Your task to perform on an android device: Open Yahoo.com Image 0: 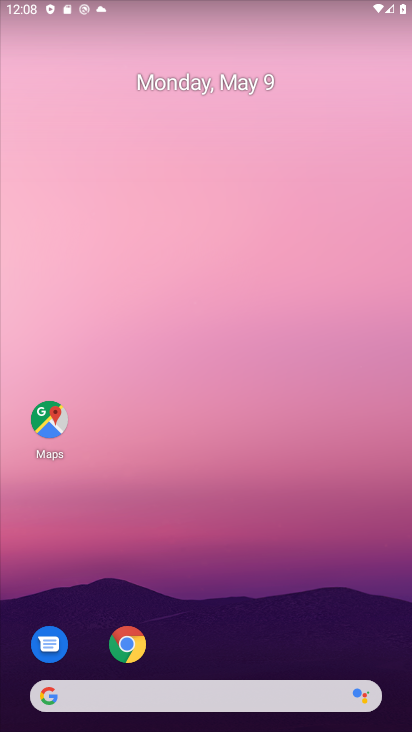
Step 0: click (119, 637)
Your task to perform on an android device: Open Yahoo.com Image 1: 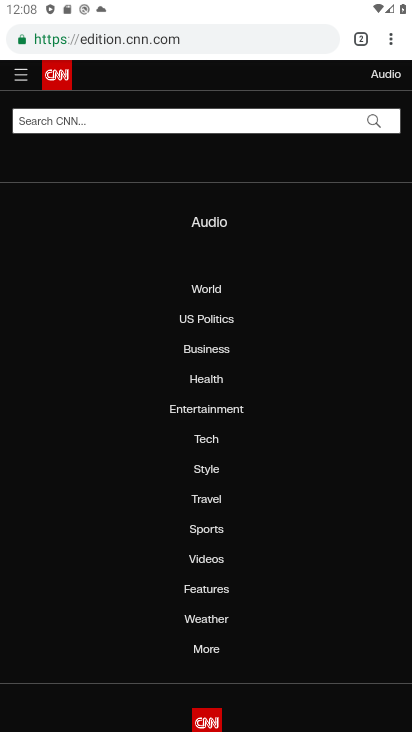
Step 1: click (358, 36)
Your task to perform on an android device: Open Yahoo.com Image 2: 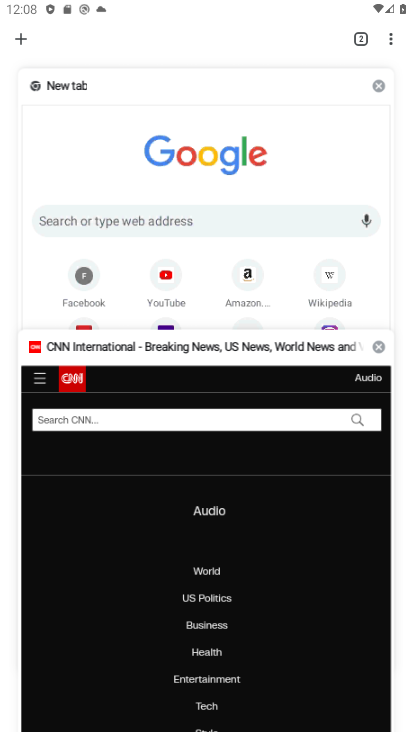
Step 2: click (380, 341)
Your task to perform on an android device: Open Yahoo.com Image 3: 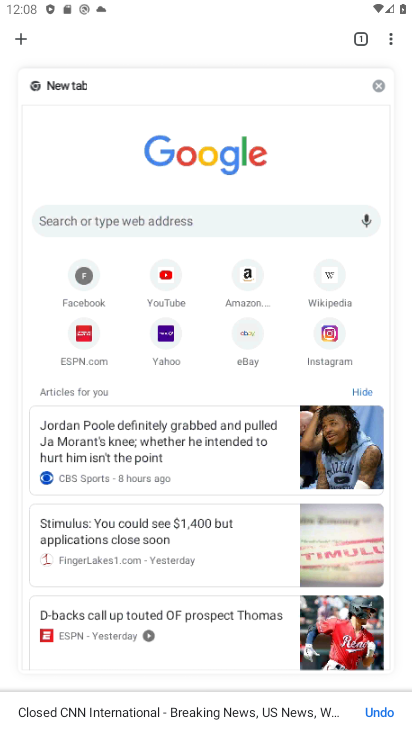
Step 3: click (377, 84)
Your task to perform on an android device: Open Yahoo.com Image 4: 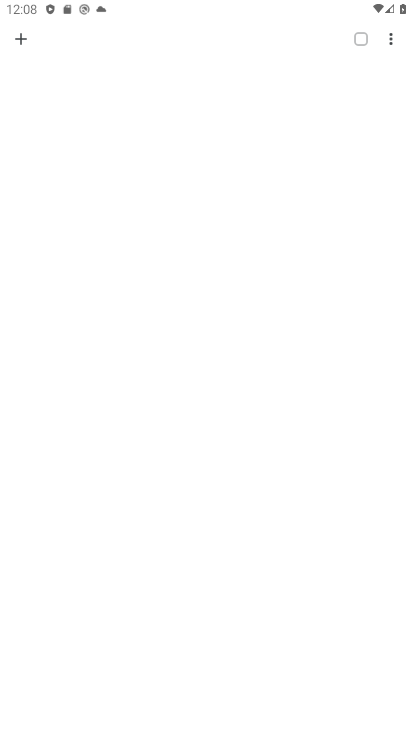
Step 4: click (18, 38)
Your task to perform on an android device: Open Yahoo.com Image 5: 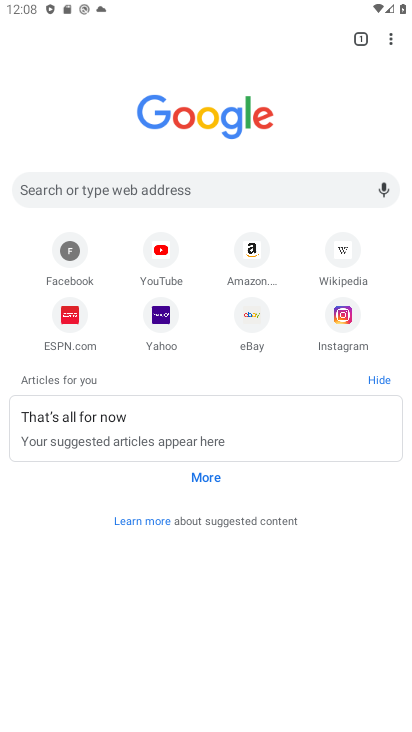
Step 5: click (163, 310)
Your task to perform on an android device: Open Yahoo.com Image 6: 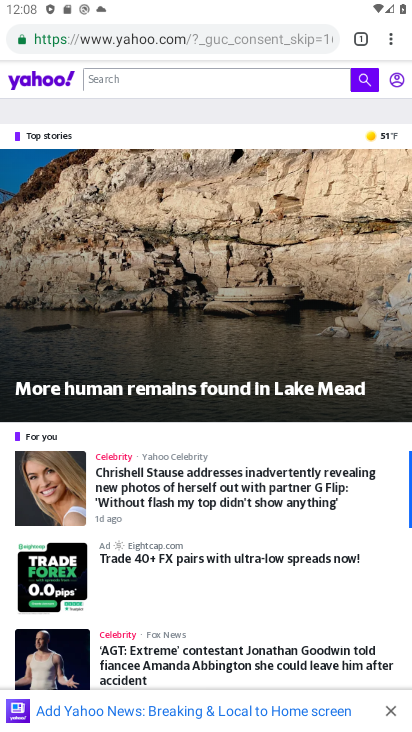
Step 6: task complete